Your task to perform on an android device: turn off airplane mode Image 0: 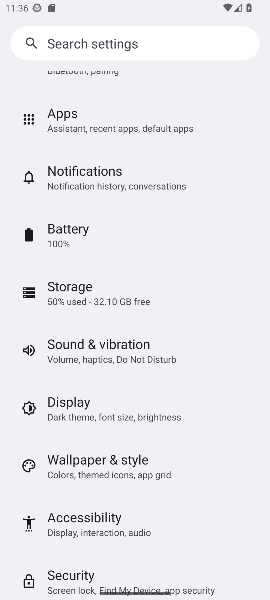
Step 0: press back button
Your task to perform on an android device: turn off airplane mode Image 1: 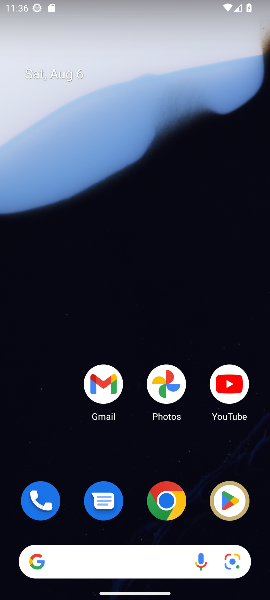
Step 1: drag from (136, 514) to (121, 31)
Your task to perform on an android device: turn off airplane mode Image 2: 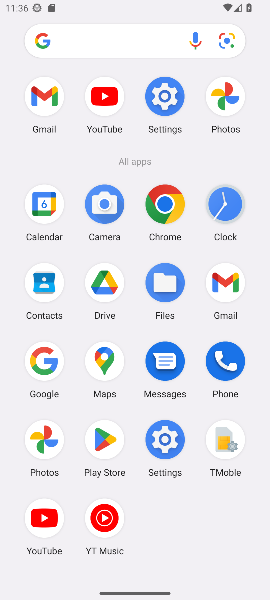
Step 2: click (159, 434)
Your task to perform on an android device: turn off airplane mode Image 3: 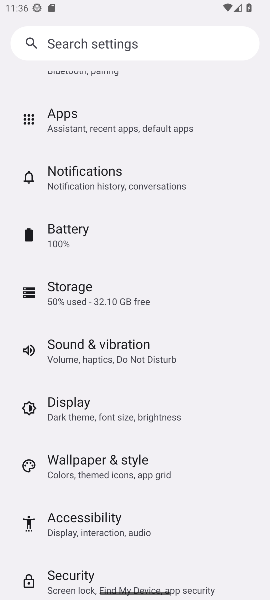
Step 3: drag from (172, 161) to (221, 576)
Your task to perform on an android device: turn off airplane mode Image 4: 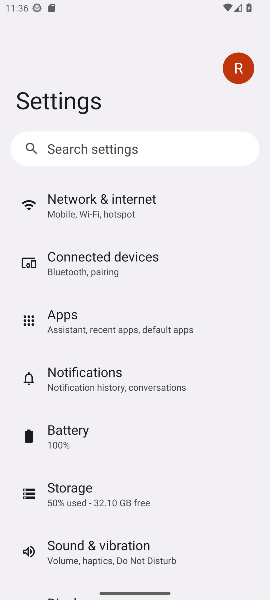
Step 4: click (150, 206)
Your task to perform on an android device: turn off airplane mode Image 5: 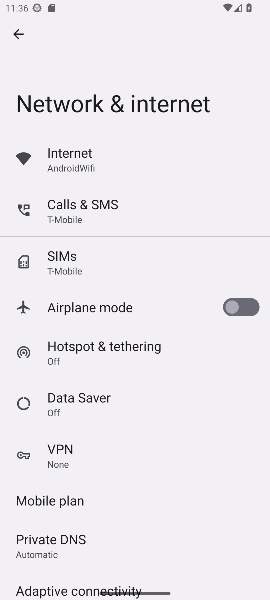
Step 5: task complete